Your task to perform on an android device: Open wifi settings Image 0: 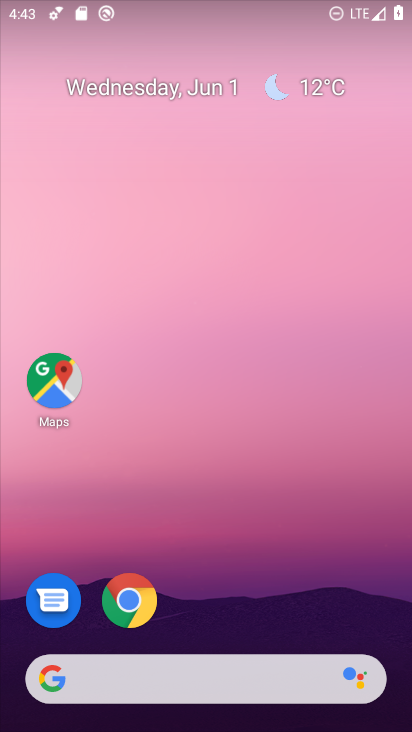
Step 0: drag from (333, 613) to (266, 116)
Your task to perform on an android device: Open wifi settings Image 1: 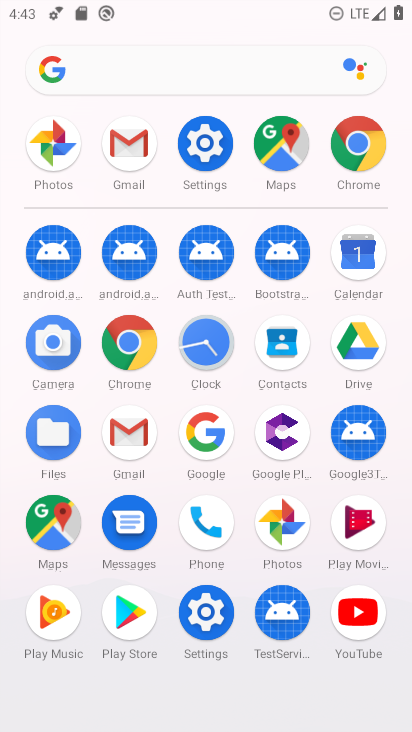
Step 1: click (206, 613)
Your task to perform on an android device: Open wifi settings Image 2: 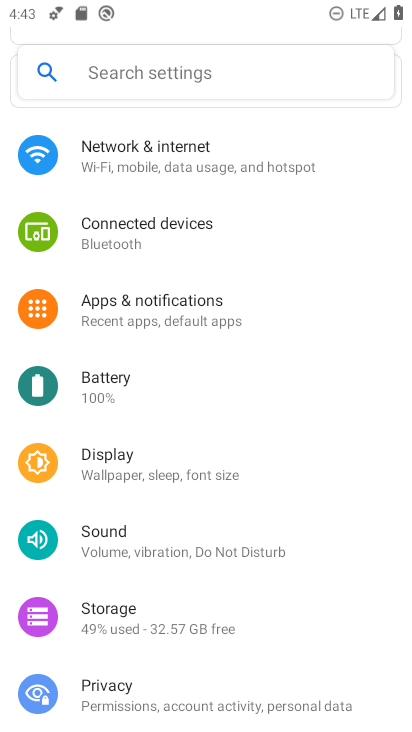
Step 2: click (121, 162)
Your task to perform on an android device: Open wifi settings Image 3: 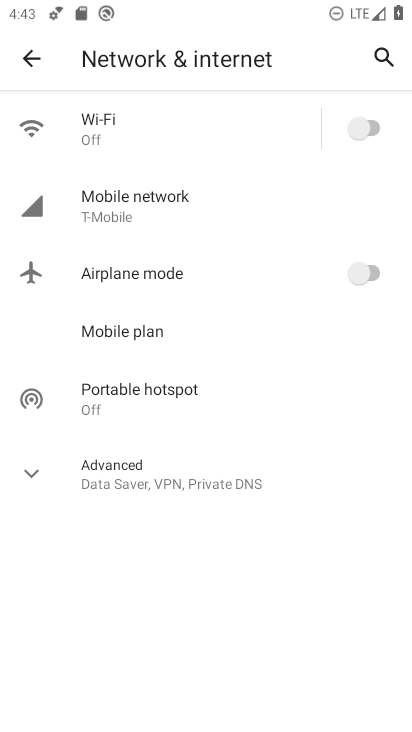
Step 3: click (103, 134)
Your task to perform on an android device: Open wifi settings Image 4: 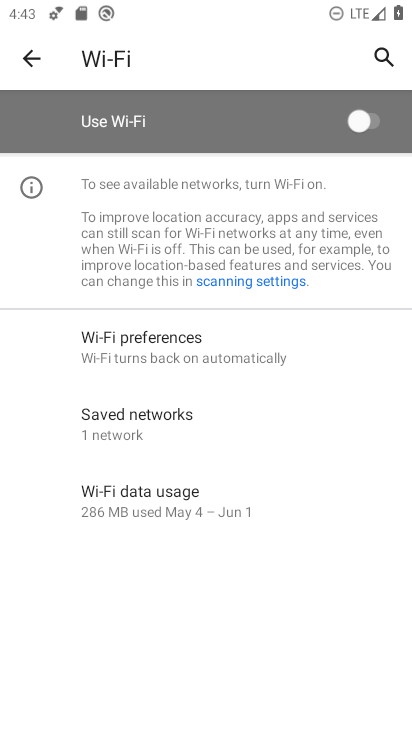
Step 4: task complete